Your task to perform on an android device: Go to sound settings Image 0: 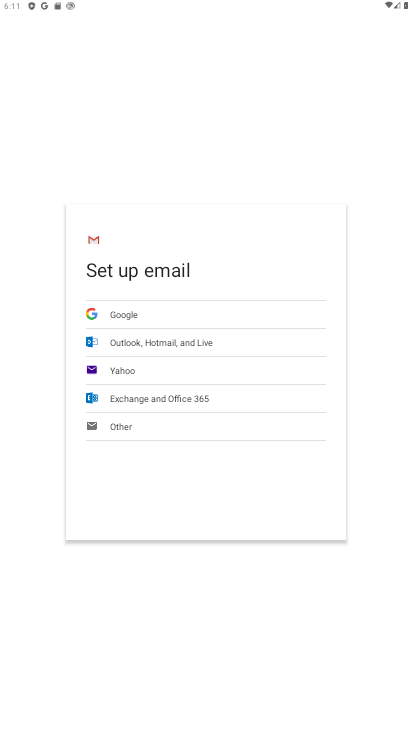
Step 0: press home button
Your task to perform on an android device: Go to sound settings Image 1: 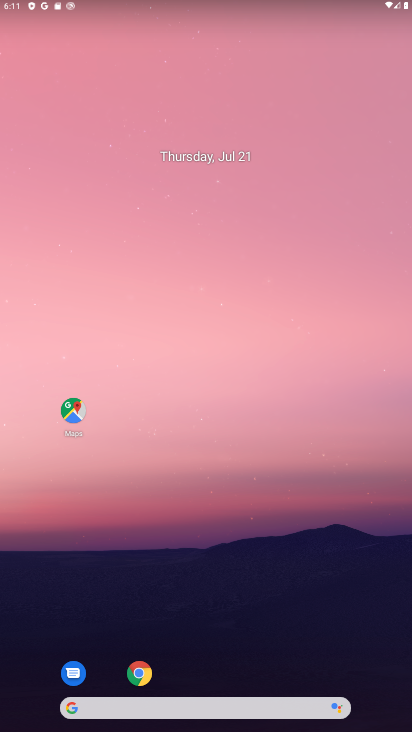
Step 1: drag from (181, 667) to (218, 92)
Your task to perform on an android device: Go to sound settings Image 2: 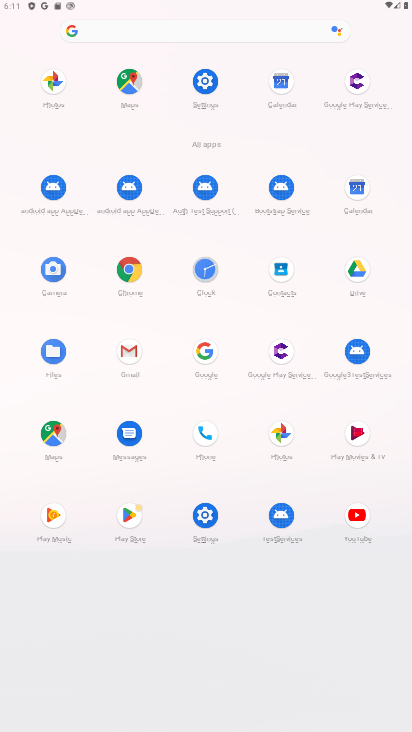
Step 2: click (204, 81)
Your task to perform on an android device: Go to sound settings Image 3: 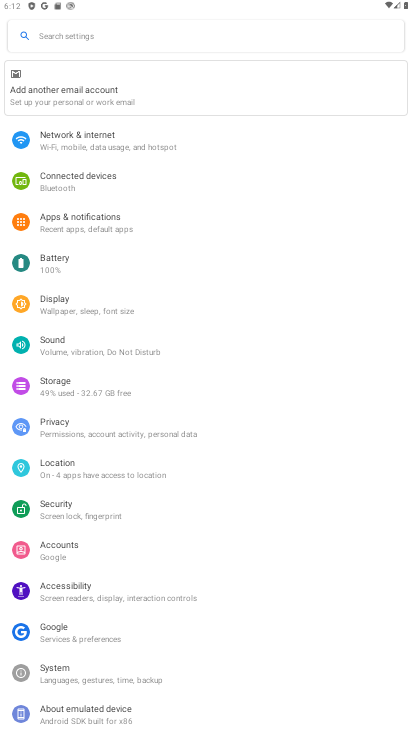
Step 3: click (68, 345)
Your task to perform on an android device: Go to sound settings Image 4: 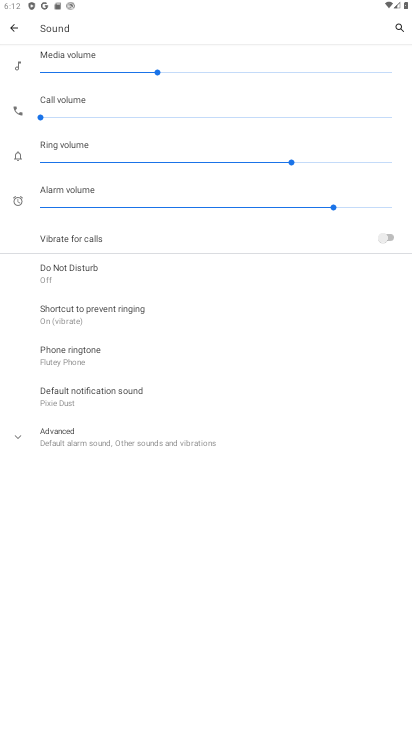
Step 4: task complete